Your task to perform on an android device: Show me the alarms in the clock app Image 0: 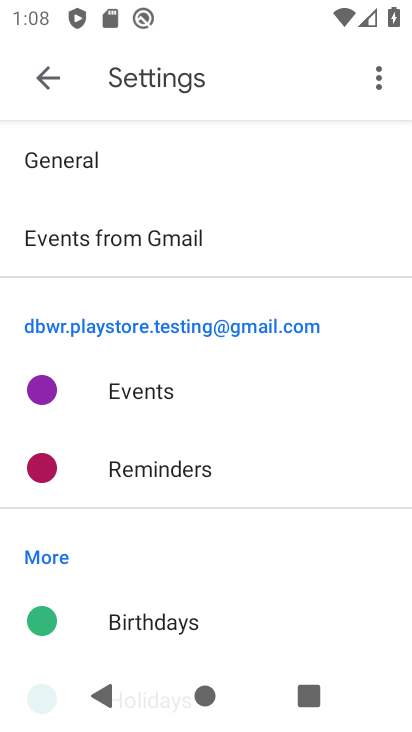
Step 0: press home button
Your task to perform on an android device: Show me the alarms in the clock app Image 1: 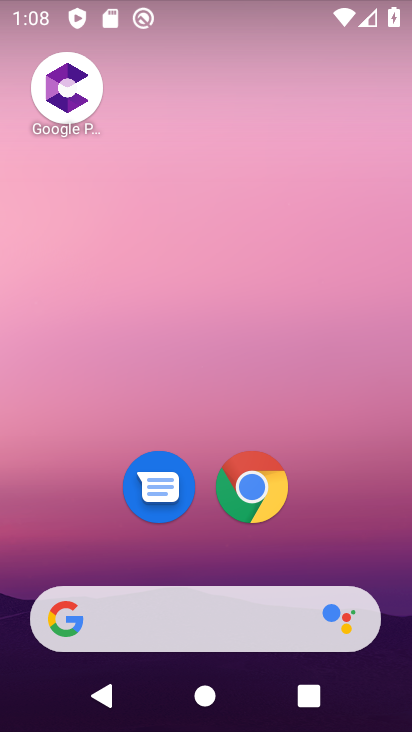
Step 1: drag from (192, 576) to (286, 97)
Your task to perform on an android device: Show me the alarms in the clock app Image 2: 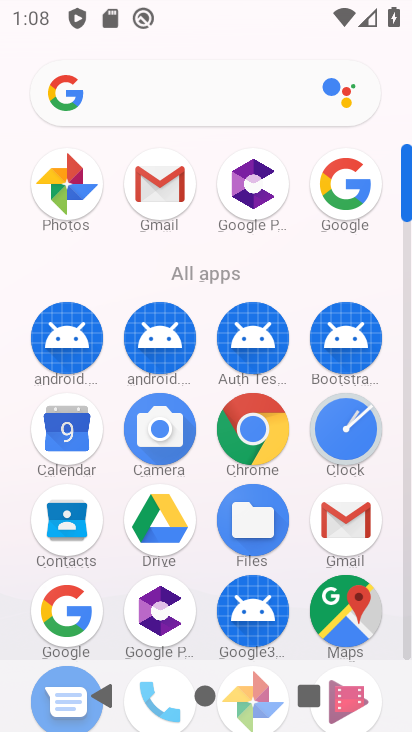
Step 2: click (338, 424)
Your task to perform on an android device: Show me the alarms in the clock app Image 3: 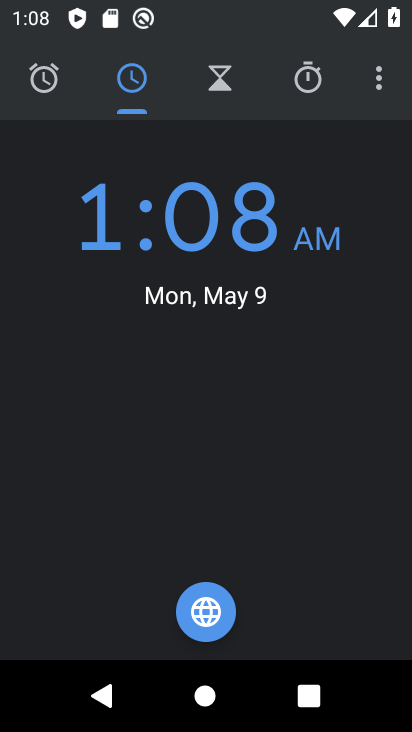
Step 3: click (32, 77)
Your task to perform on an android device: Show me the alarms in the clock app Image 4: 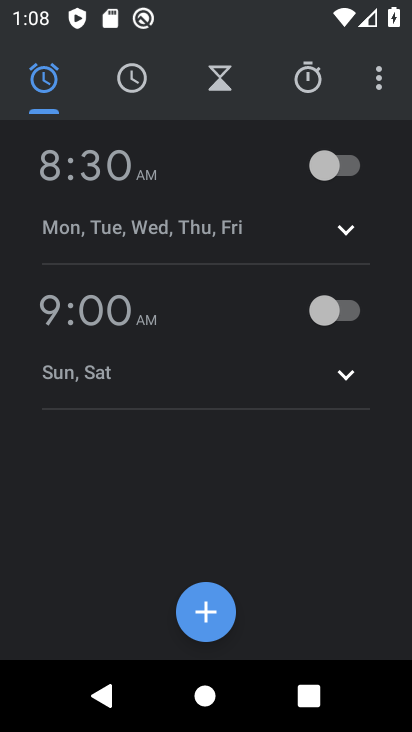
Step 4: task complete